Your task to perform on an android device: Open CNN.com Image 0: 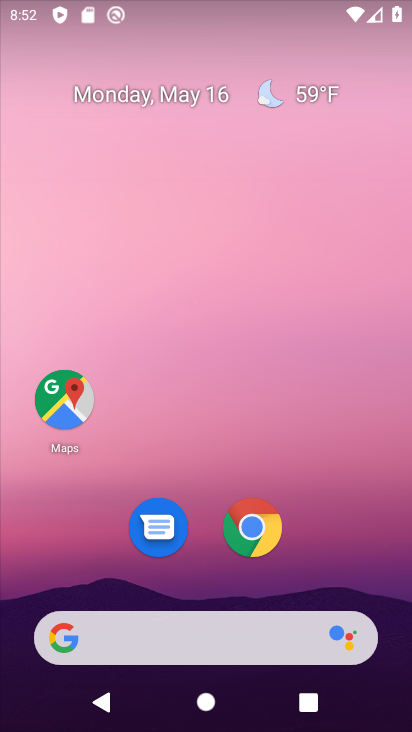
Step 0: click (248, 525)
Your task to perform on an android device: Open CNN.com Image 1: 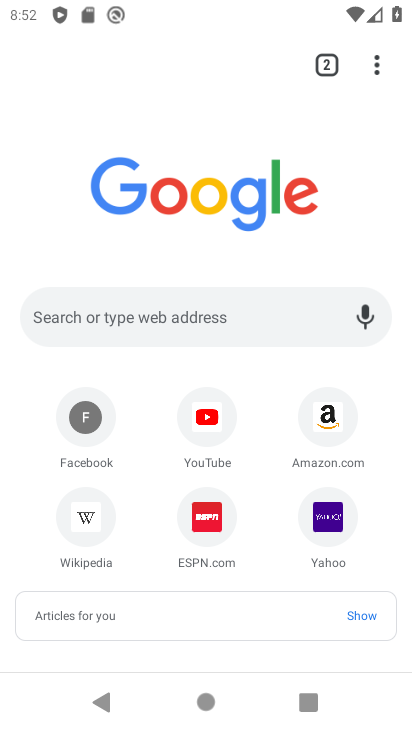
Step 1: click (155, 313)
Your task to perform on an android device: Open CNN.com Image 2: 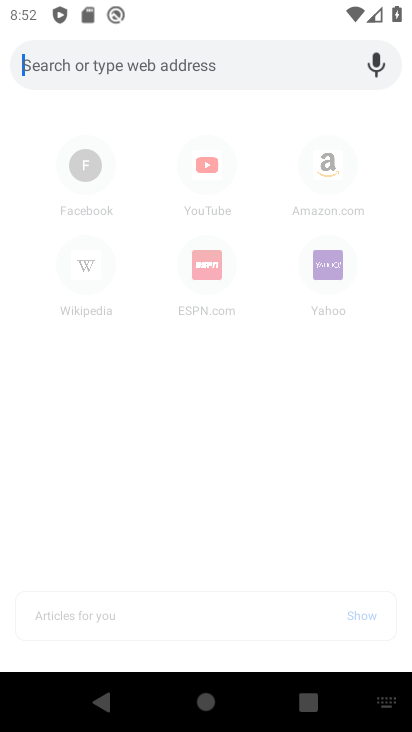
Step 2: type "CNN.com"
Your task to perform on an android device: Open CNN.com Image 3: 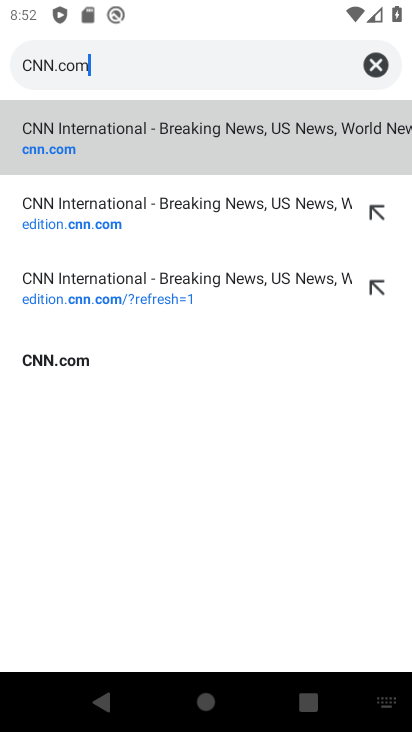
Step 3: click (37, 353)
Your task to perform on an android device: Open CNN.com Image 4: 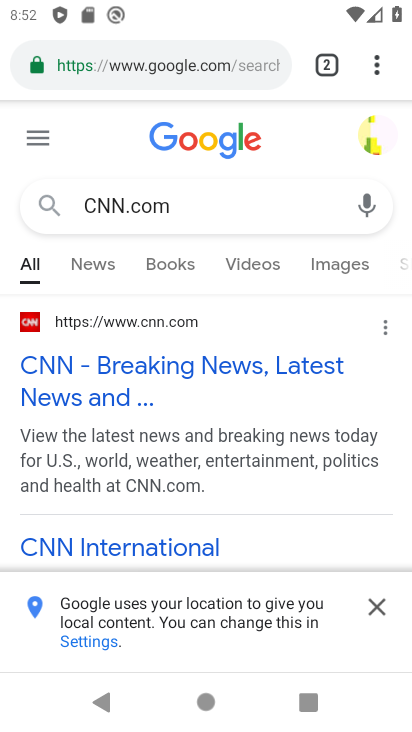
Step 4: click (82, 377)
Your task to perform on an android device: Open CNN.com Image 5: 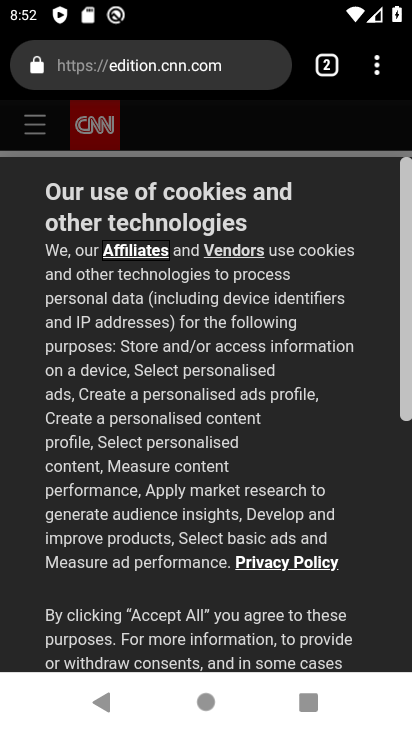
Step 5: task complete